Your task to perform on an android device: toggle data saver in the chrome app Image 0: 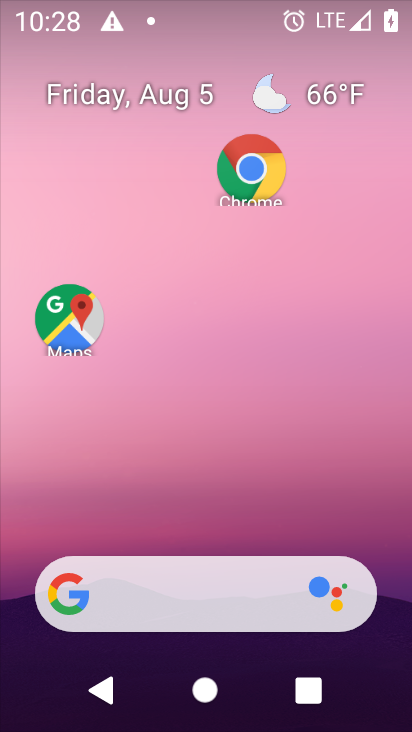
Step 0: click (258, 172)
Your task to perform on an android device: toggle data saver in the chrome app Image 1: 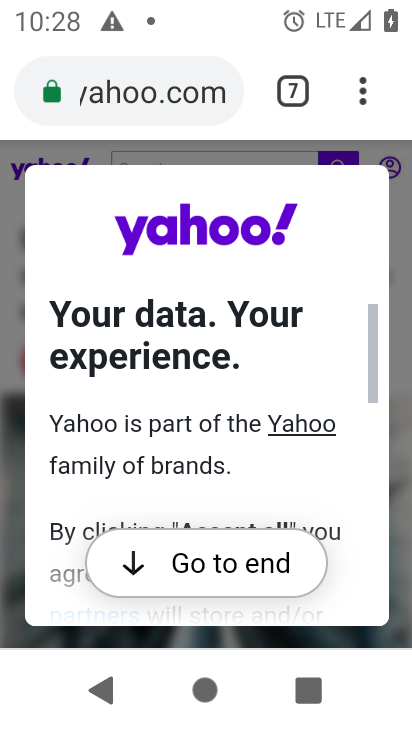
Step 1: click (357, 103)
Your task to perform on an android device: toggle data saver in the chrome app Image 2: 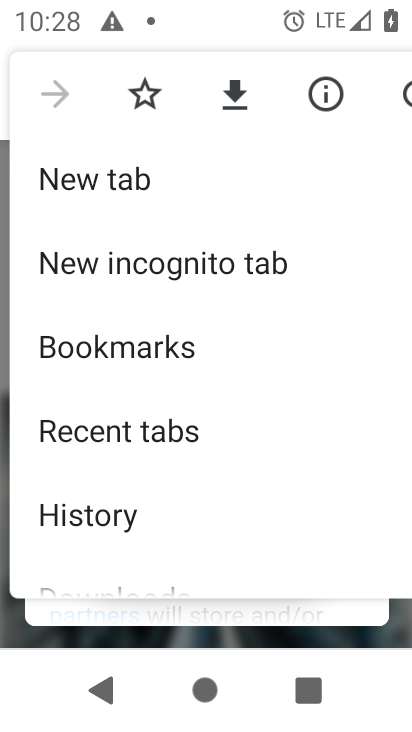
Step 2: drag from (190, 499) to (197, 221)
Your task to perform on an android device: toggle data saver in the chrome app Image 3: 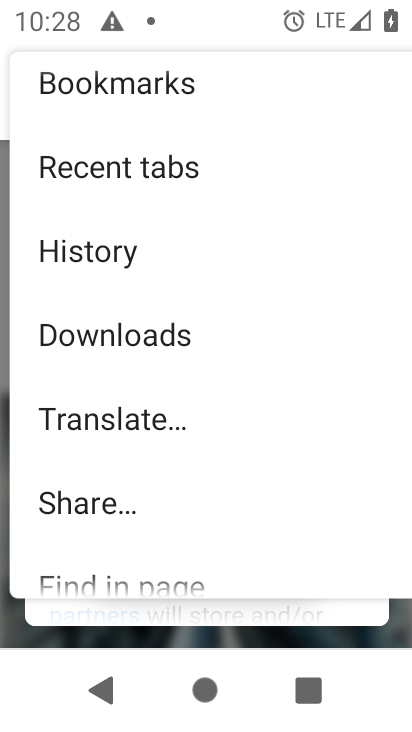
Step 3: drag from (114, 535) to (124, 158)
Your task to perform on an android device: toggle data saver in the chrome app Image 4: 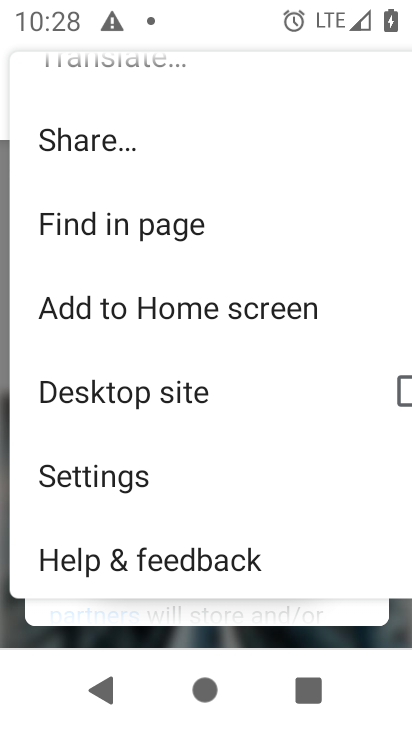
Step 4: click (149, 474)
Your task to perform on an android device: toggle data saver in the chrome app Image 5: 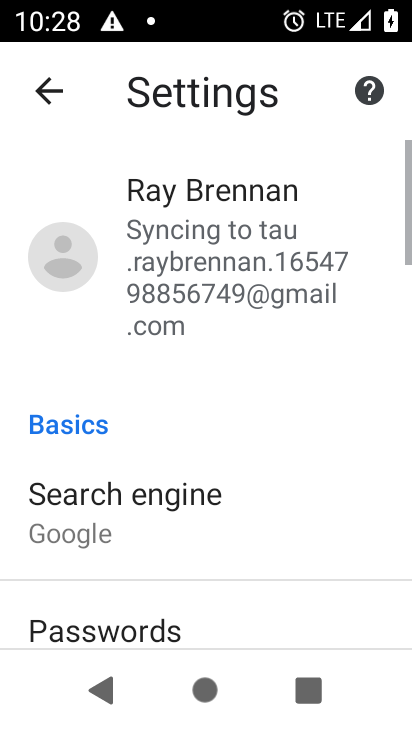
Step 5: drag from (182, 568) to (181, 151)
Your task to perform on an android device: toggle data saver in the chrome app Image 6: 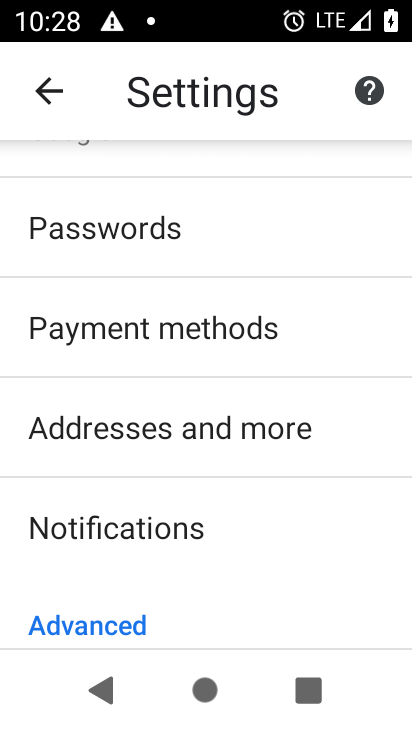
Step 6: drag from (197, 545) to (193, 139)
Your task to perform on an android device: toggle data saver in the chrome app Image 7: 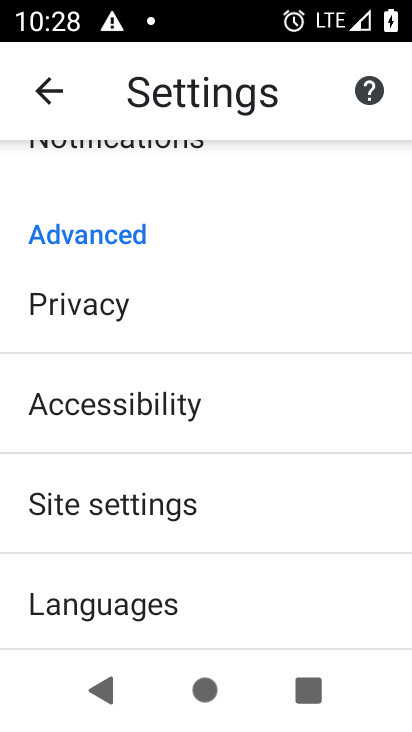
Step 7: drag from (190, 541) to (184, 206)
Your task to perform on an android device: toggle data saver in the chrome app Image 8: 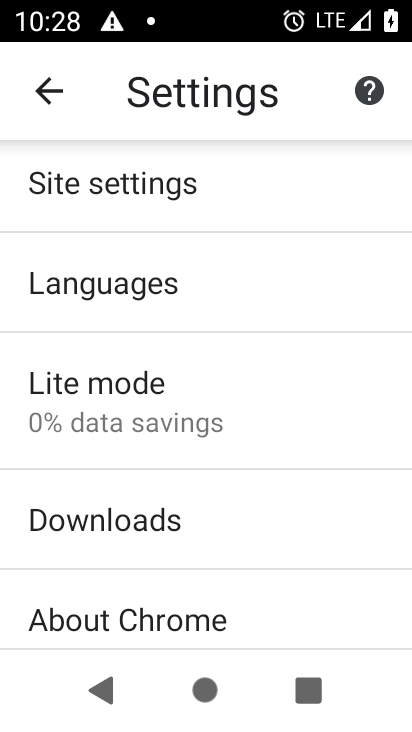
Step 8: click (196, 384)
Your task to perform on an android device: toggle data saver in the chrome app Image 9: 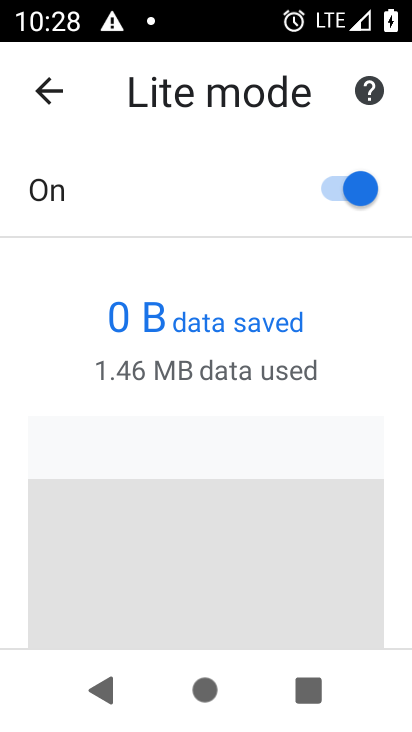
Step 9: click (340, 206)
Your task to perform on an android device: toggle data saver in the chrome app Image 10: 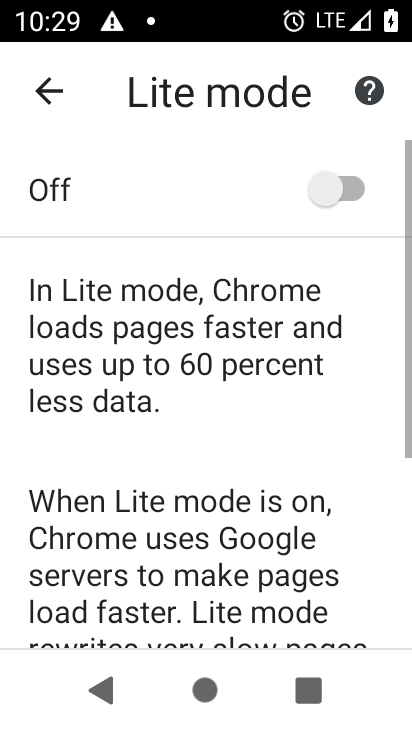
Step 10: task complete